Your task to perform on an android device: allow notifications from all sites in the chrome app Image 0: 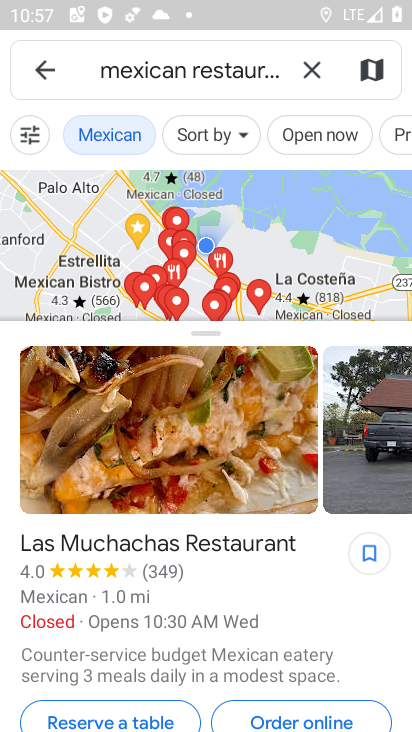
Step 0: press home button
Your task to perform on an android device: allow notifications from all sites in the chrome app Image 1: 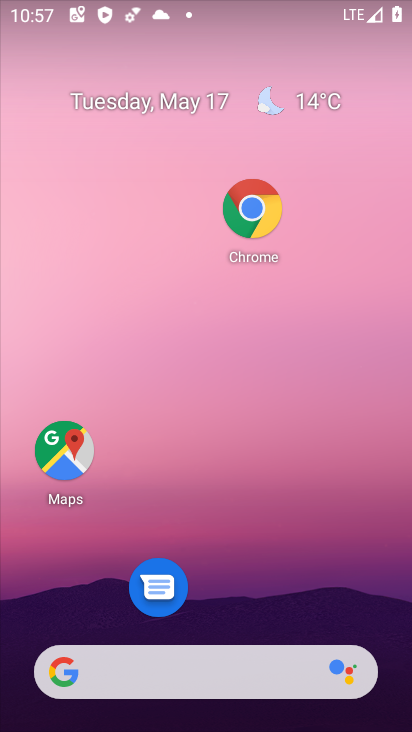
Step 1: drag from (302, 615) to (299, 484)
Your task to perform on an android device: allow notifications from all sites in the chrome app Image 2: 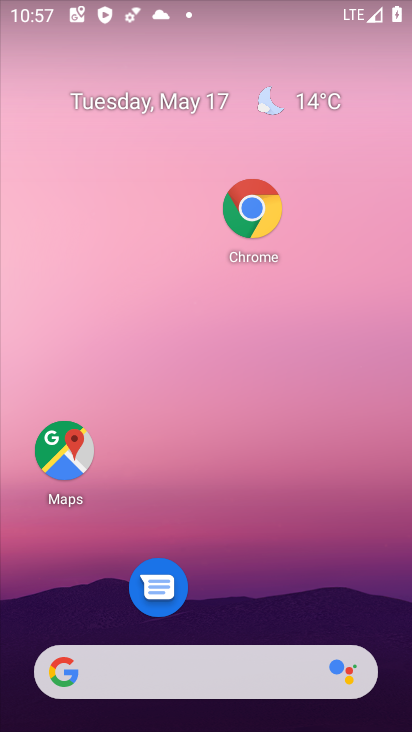
Step 2: click (255, 209)
Your task to perform on an android device: allow notifications from all sites in the chrome app Image 3: 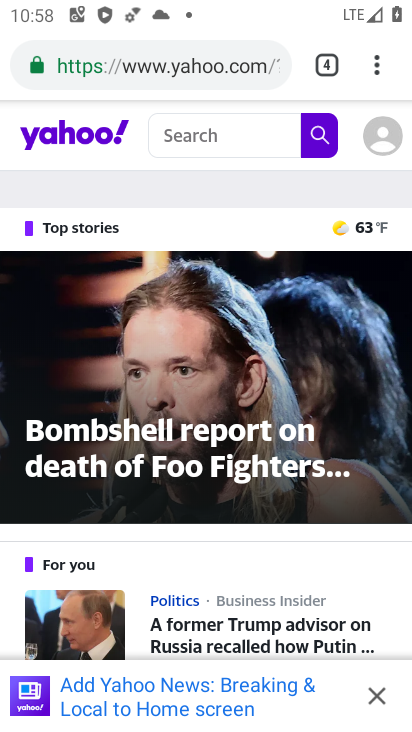
Step 3: click (383, 66)
Your task to perform on an android device: allow notifications from all sites in the chrome app Image 4: 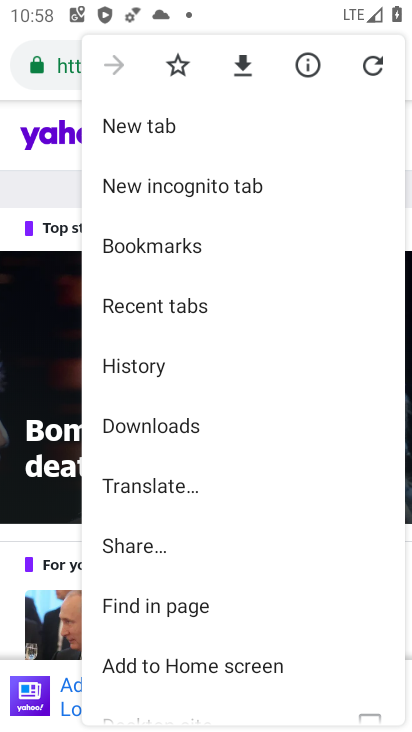
Step 4: drag from (221, 660) to (229, 360)
Your task to perform on an android device: allow notifications from all sites in the chrome app Image 5: 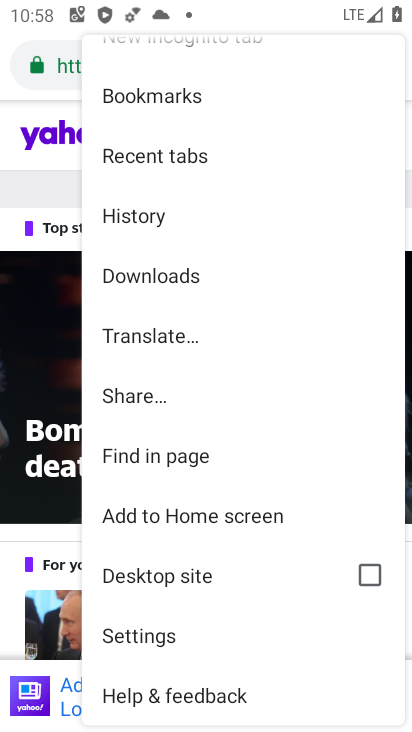
Step 5: click (183, 642)
Your task to perform on an android device: allow notifications from all sites in the chrome app Image 6: 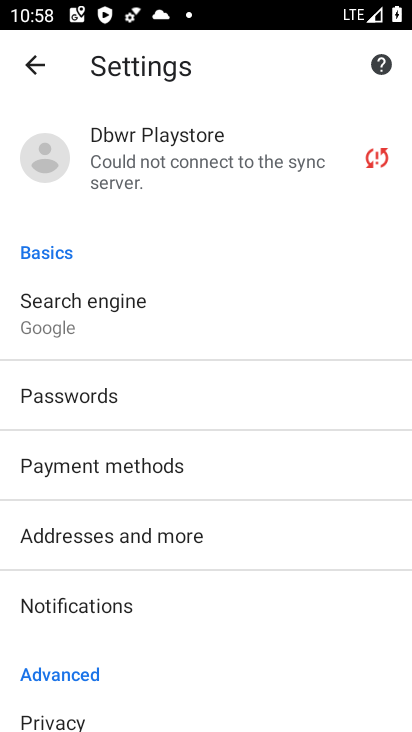
Step 6: drag from (252, 642) to (260, 476)
Your task to perform on an android device: allow notifications from all sites in the chrome app Image 7: 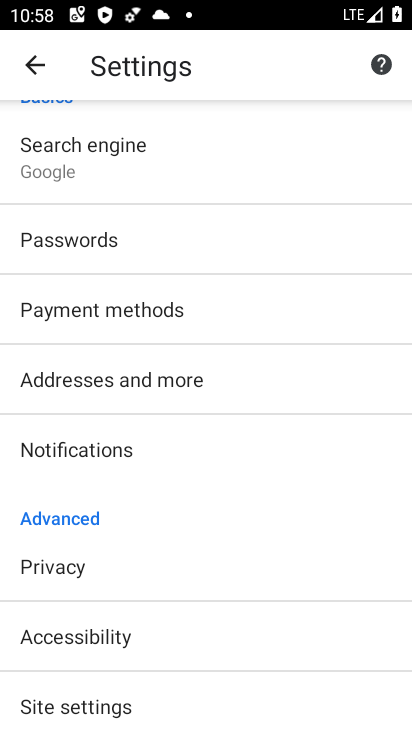
Step 7: click (92, 458)
Your task to perform on an android device: allow notifications from all sites in the chrome app Image 8: 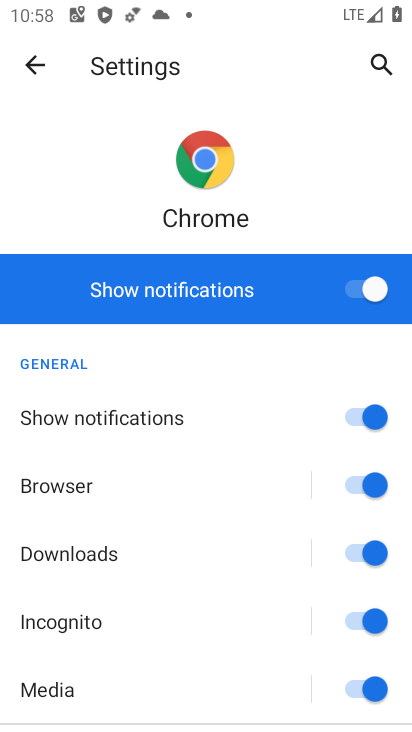
Step 8: task complete